Your task to perform on an android device: turn on showing notifications on the lock screen Image 0: 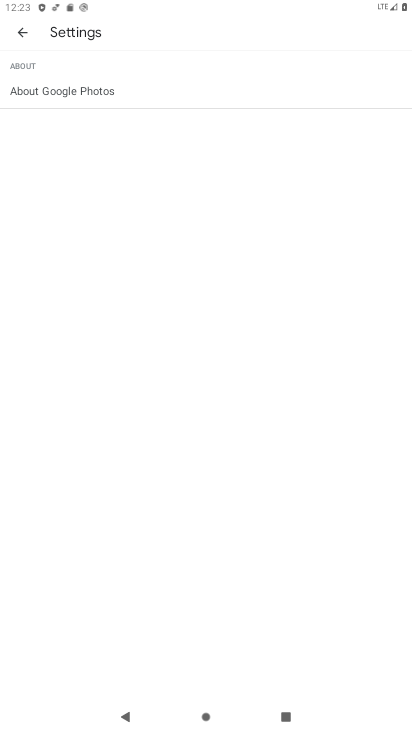
Step 0: press home button
Your task to perform on an android device: turn on showing notifications on the lock screen Image 1: 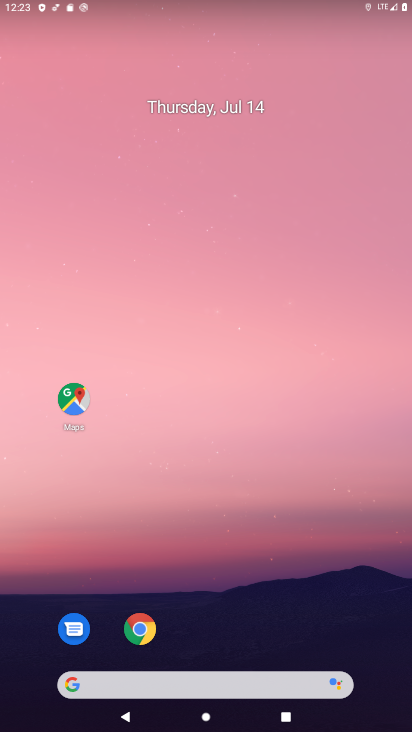
Step 1: drag from (268, 560) to (209, 218)
Your task to perform on an android device: turn on showing notifications on the lock screen Image 2: 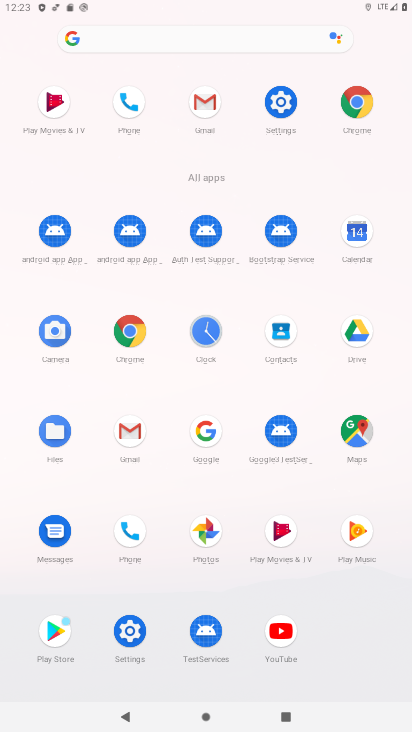
Step 2: click (280, 102)
Your task to perform on an android device: turn on showing notifications on the lock screen Image 3: 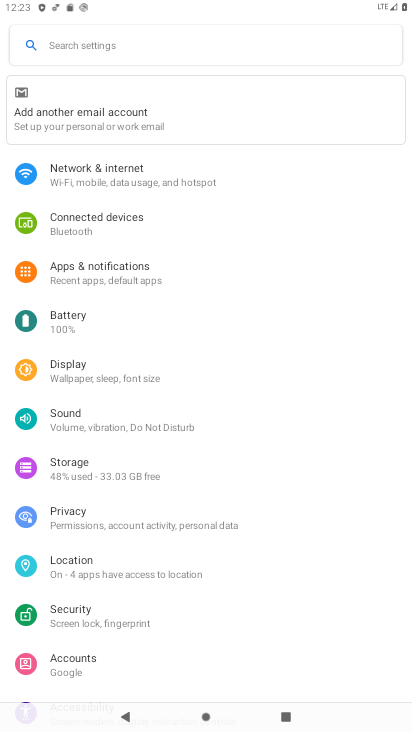
Step 3: click (102, 275)
Your task to perform on an android device: turn on showing notifications on the lock screen Image 4: 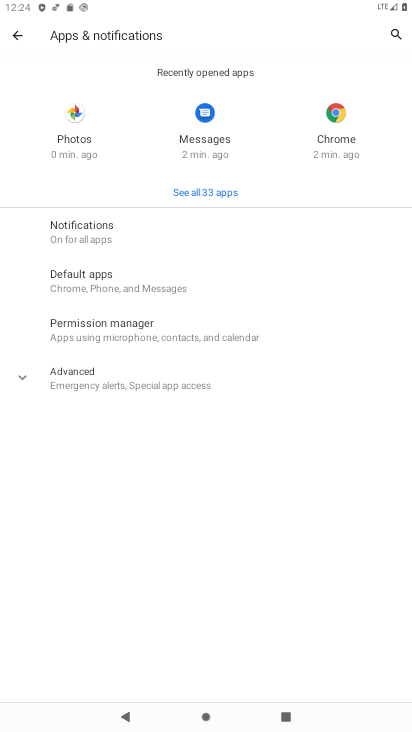
Step 4: click (95, 238)
Your task to perform on an android device: turn on showing notifications on the lock screen Image 5: 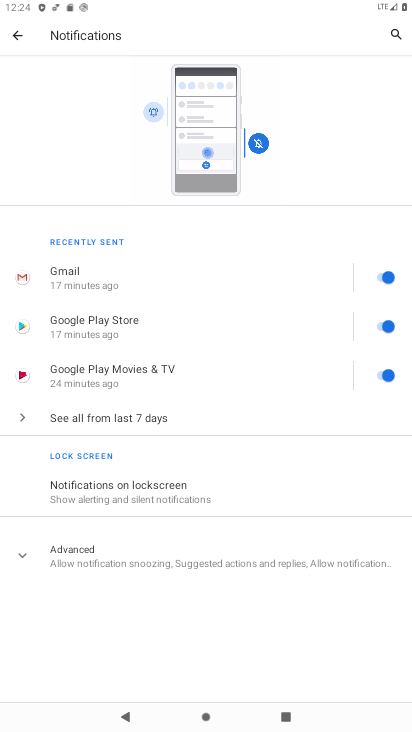
Step 5: click (126, 484)
Your task to perform on an android device: turn on showing notifications on the lock screen Image 6: 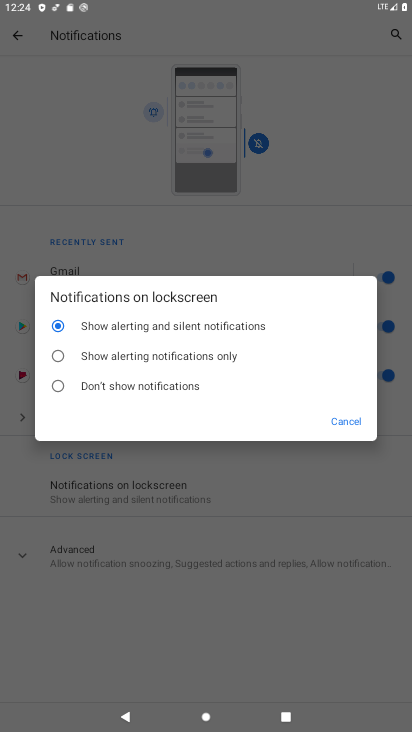
Step 6: task complete